Your task to perform on an android device: Open the phone app and click the voicemail tab. Image 0: 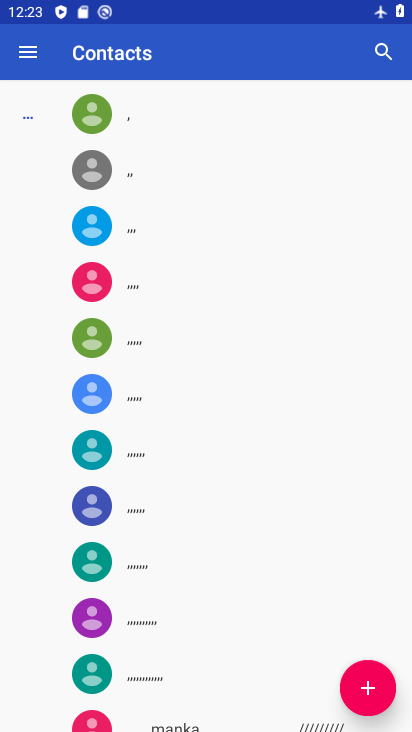
Step 0: press home button
Your task to perform on an android device: Open the phone app and click the voicemail tab. Image 1: 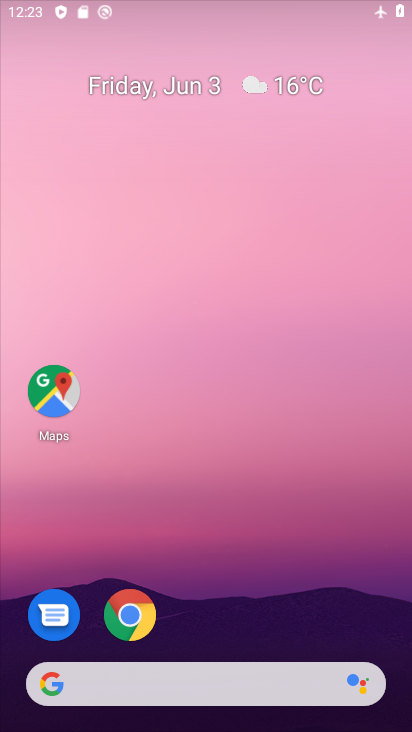
Step 1: drag from (195, 646) to (221, 366)
Your task to perform on an android device: Open the phone app and click the voicemail tab. Image 2: 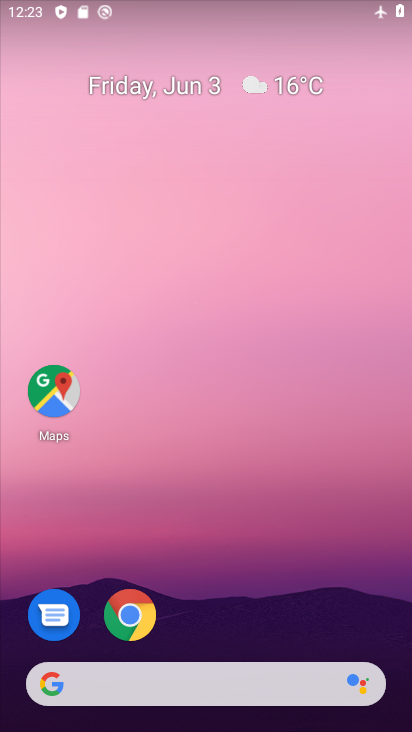
Step 2: drag from (261, 622) to (233, 289)
Your task to perform on an android device: Open the phone app and click the voicemail tab. Image 3: 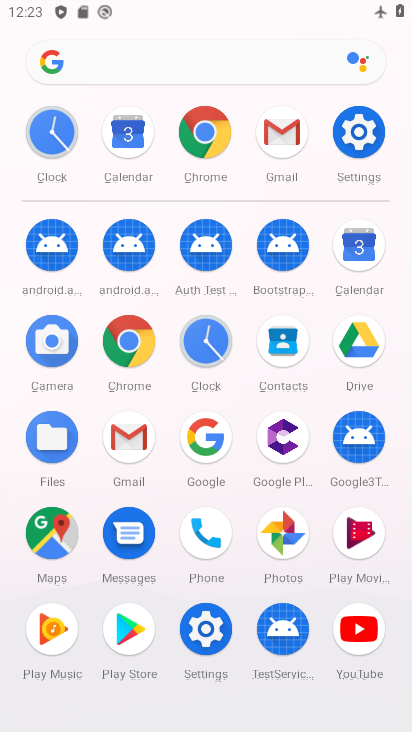
Step 3: click (200, 536)
Your task to perform on an android device: Open the phone app and click the voicemail tab. Image 4: 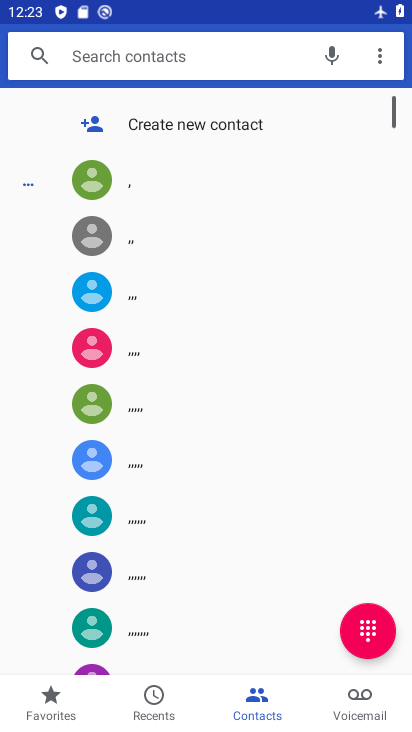
Step 4: click (365, 698)
Your task to perform on an android device: Open the phone app and click the voicemail tab. Image 5: 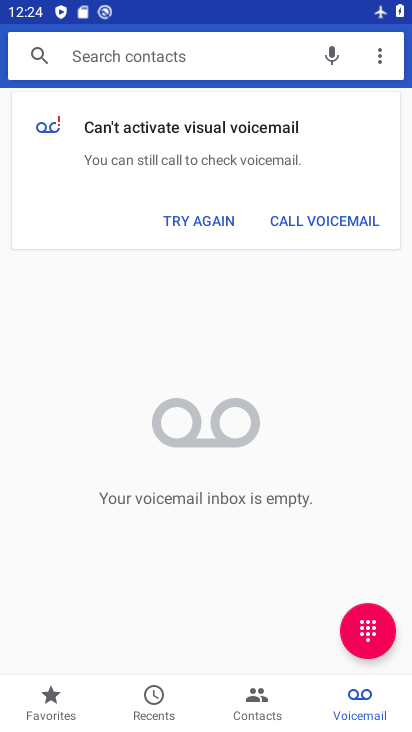
Step 5: task complete